Your task to perform on an android device: Search for sushi restaurants on Maps Image 0: 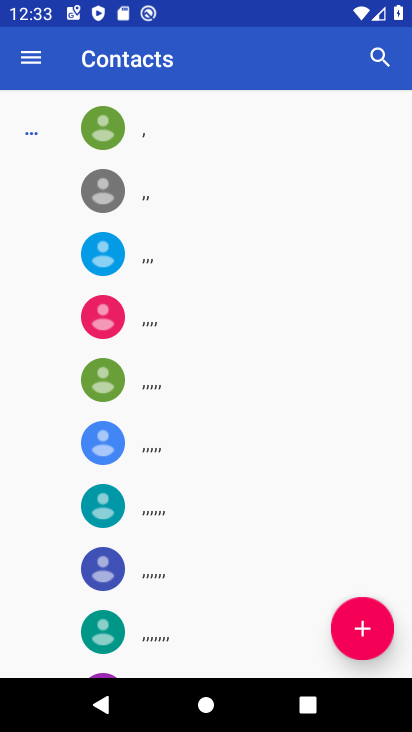
Step 0: click (133, 537)
Your task to perform on an android device: Search for sushi restaurants on Maps Image 1: 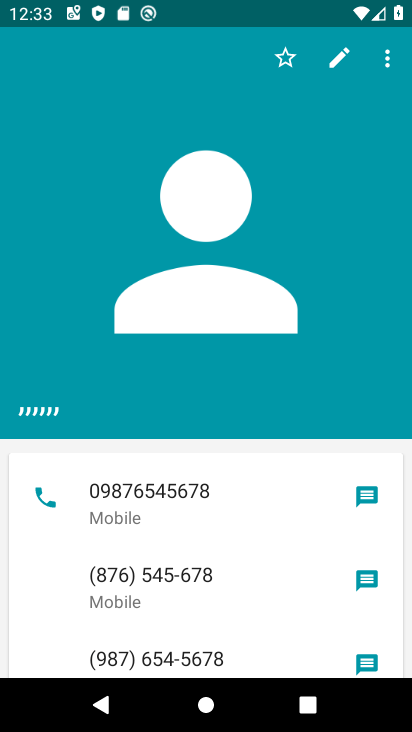
Step 1: press home button
Your task to perform on an android device: Search for sushi restaurants on Maps Image 2: 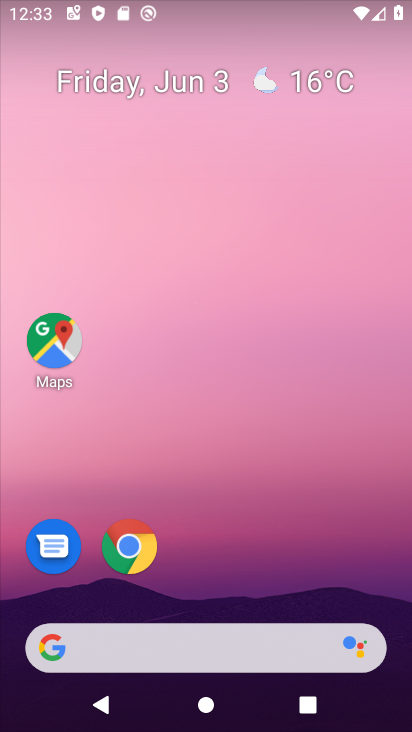
Step 2: click (53, 342)
Your task to perform on an android device: Search for sushi restaurants on Maps Image 3: 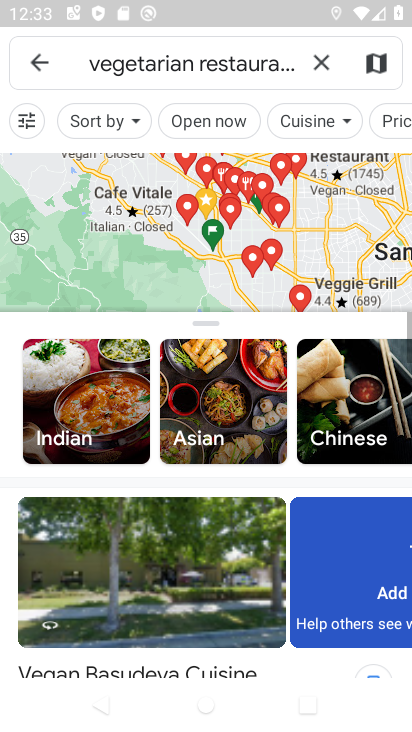
Step 3: click (326, 64)
Your task to perform on an android device: Search for sushi restaurants on Maps Image 4: 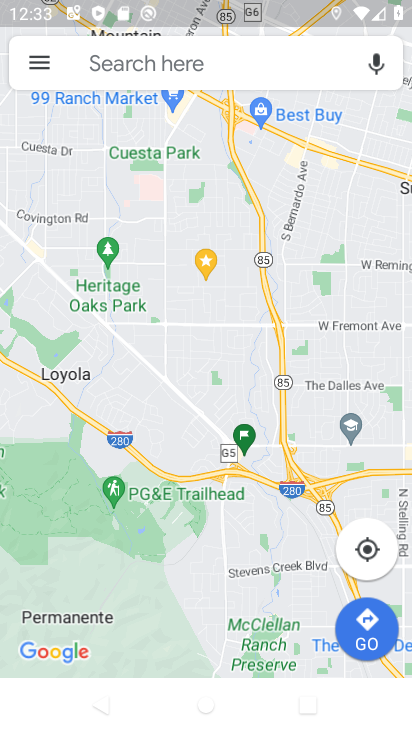
Step 4: click (104, 59)
Your task to perform on an android device: Search for sushi restaurants on Maps Image 5: 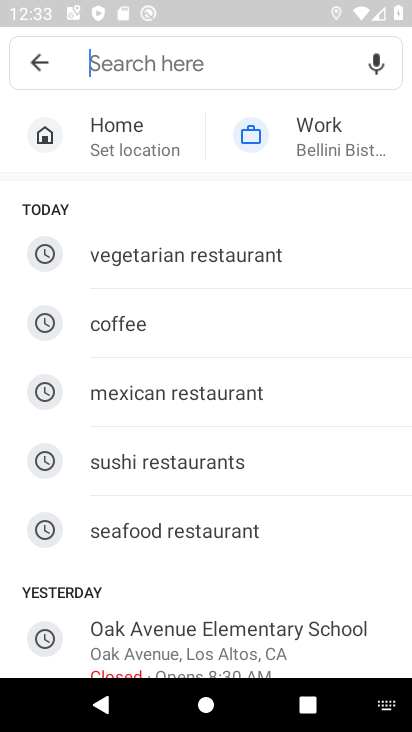
Step 5: click (155, 455)
Your task to perform on an android device: Search for sushi restaurants on Maps Image 6: 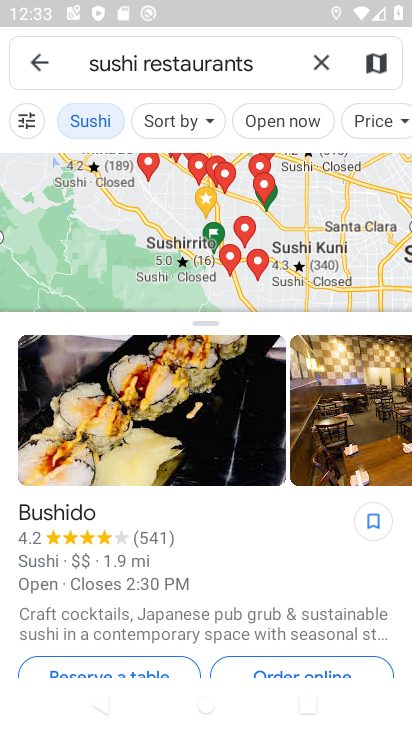
Step 6: task complete